Your task to perform on an android device: open sync settings in chrome Image 0: 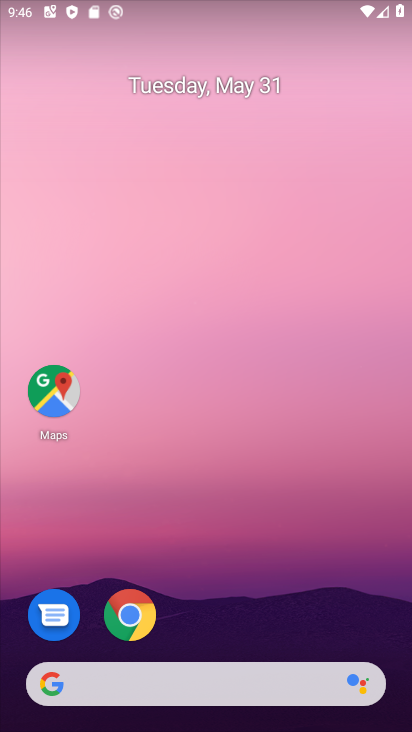
Step 0: drag from (295, 480) to (254, 134)
Your task to perform on an android device: open sync settings in chrome Image 1: 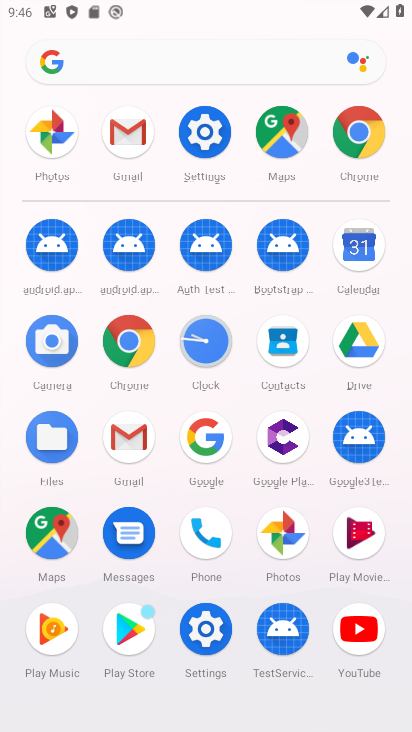
Step 1: click (361, 125)
Your task to perform on an android device: open sync settings in chrome Image 2: 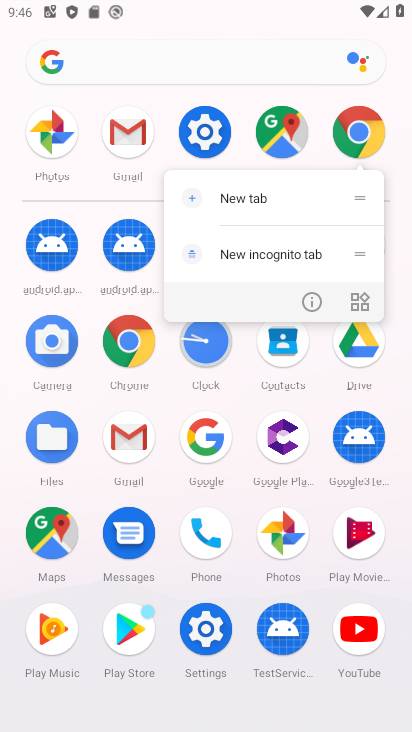
Step 2: click (361, 124)
Your task to perform on an android device: open sync settings in chrome Image 3: 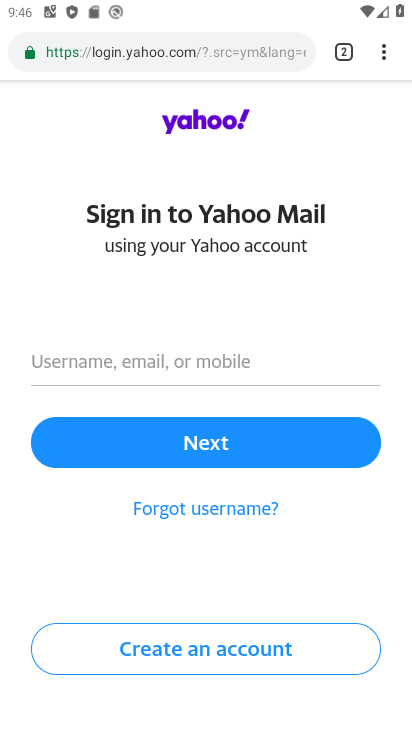
Step 3: drag from (406, 58) to (181, 585)
Your task to perform on an android device: open sync settings in chrome Image 4: 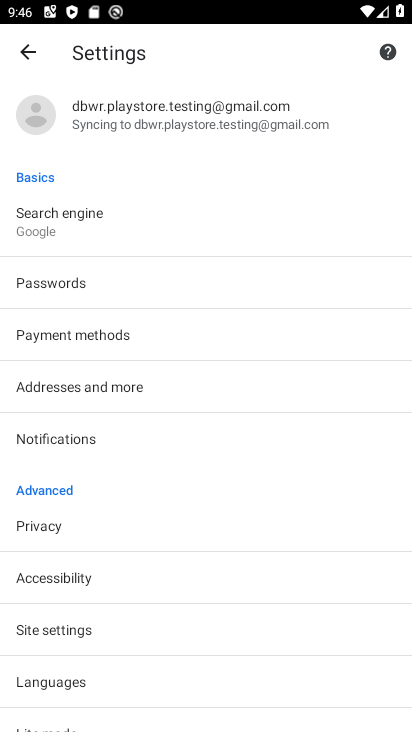
Step 4: drag from (205, 647) to (277, 254)
Your task to perform on an android device: open sync settings in chrome Image 5: 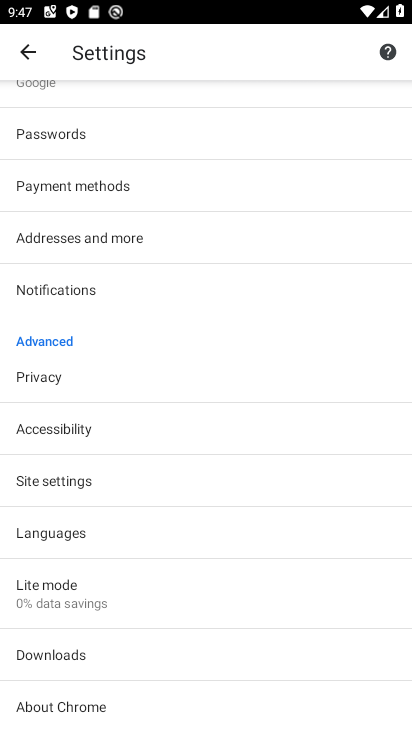
Step 5: drag from (113, 644) to (172, 400)
Your task to perform on an android device: open sync settings in chrome Image 6: 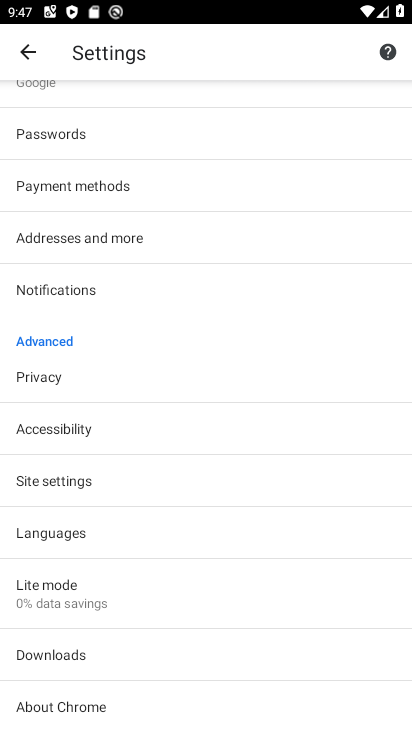
Step 6: click (104, 483)
Your task to perform on an android device: open sync settings in chrome Image 7: 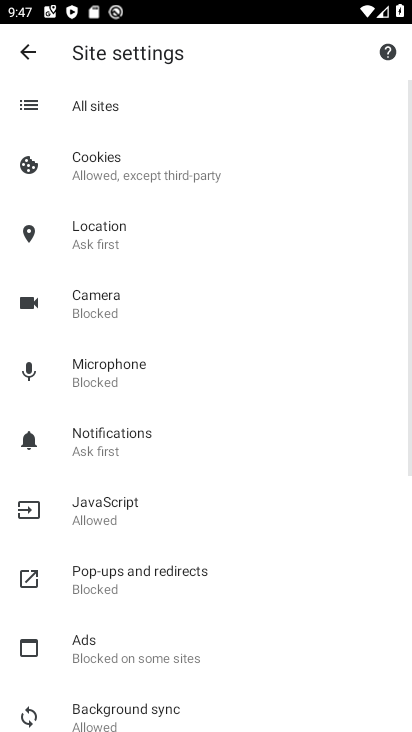
Step 7: drag from (153, 691) to (205, 419)
Your task to perform on an android device: open sync settings in chrome Image 8: 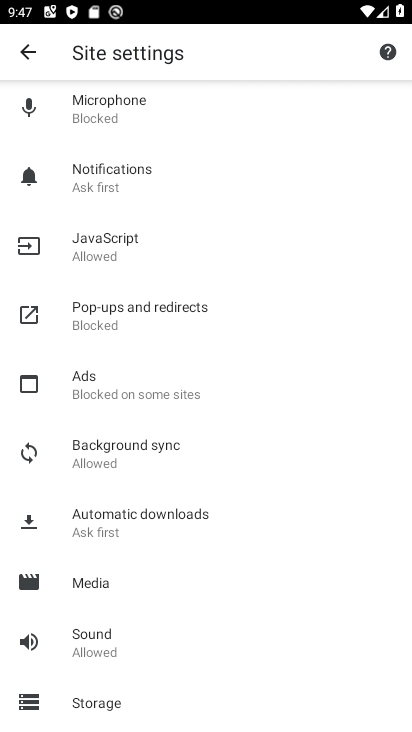
Step 8: click (130, 472)
Your task to perform on an android device: open sync settings in chrome Image 9: 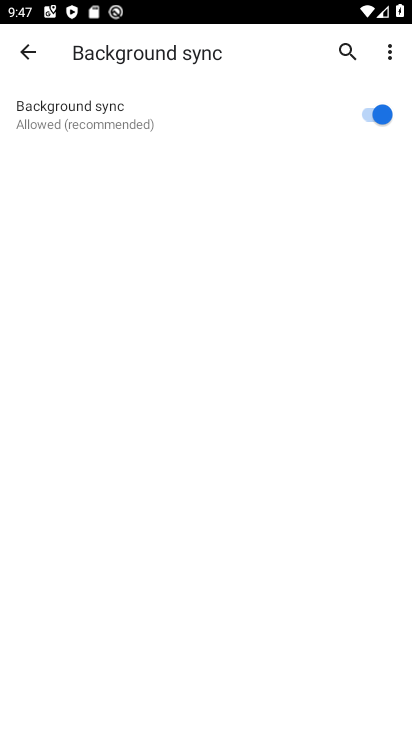
Step 9: task complete